Your task to perform on an android device: open a bookmark in the chrome app Image 0: 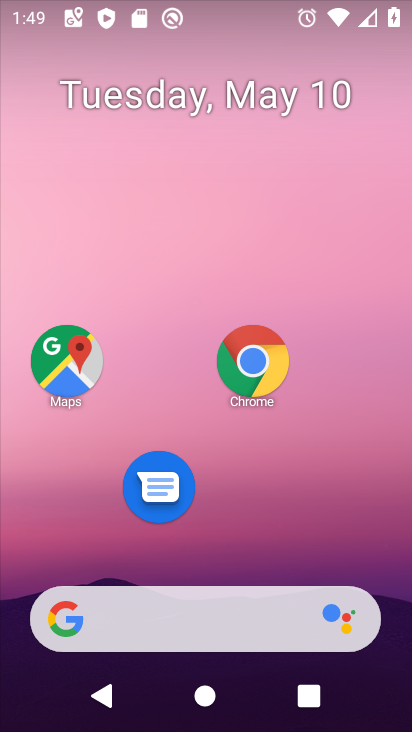
Step 0: click (253, 381)
Your task to perform on an android device: open a bookmark in the chrome app Image 1: 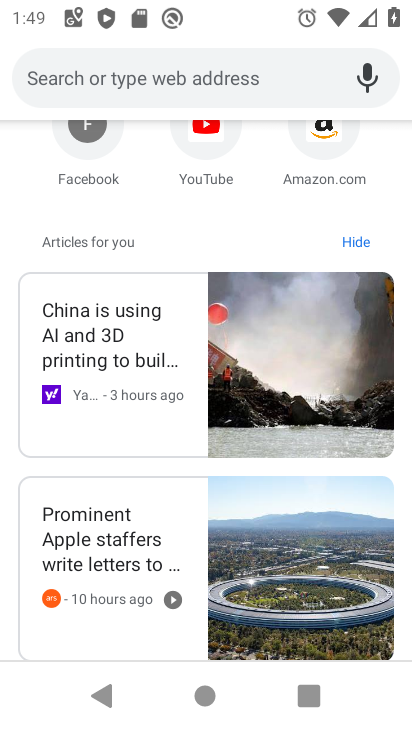
Step 1: drag from (229, 210) to (253, 661)
Your task to perform on an android device: open a bookmark in the chrome app Image 2: 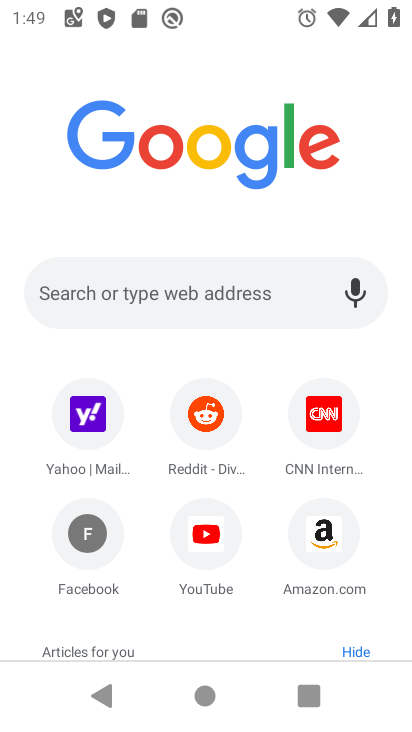
Step 2: drag from (329, 192) to (324, 575)
Your task to perform on an android device: open a bookmark in the chrome app Image 3: 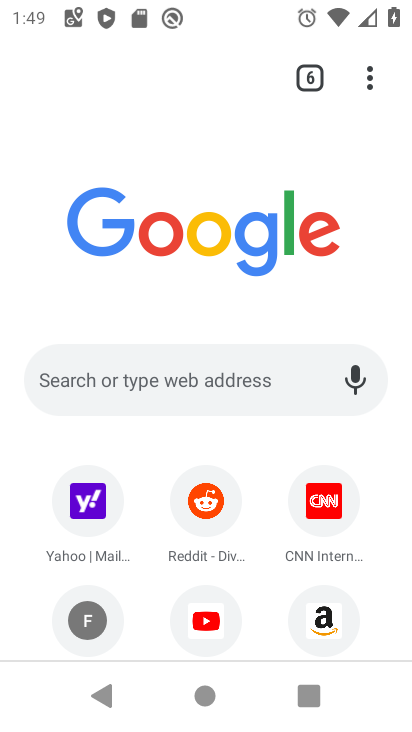
Step 3: click (368, 81)
Your task to perform on an android device: open a bookmark in the chrome app Image 4: 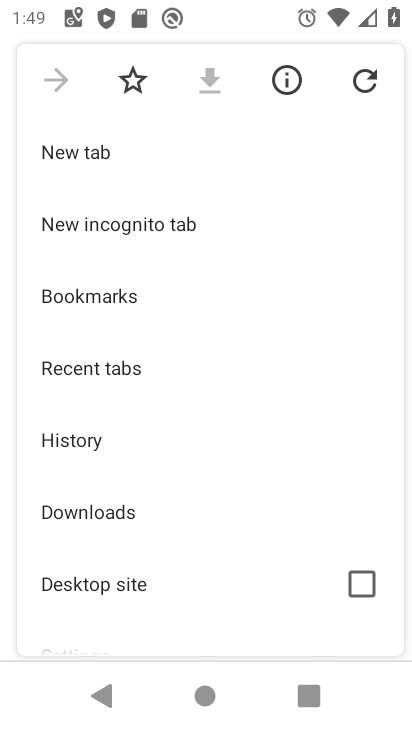
Step 4: click (256, 280)
Your task to perform on an android device: open a bookmark in the chrome app Image 5: 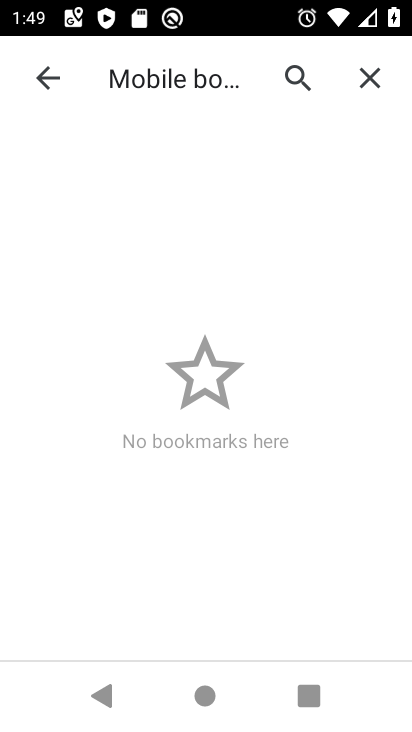
Step 5: task complete